Your task to perform on an android device: turn on translation in the chrome app Image 0: 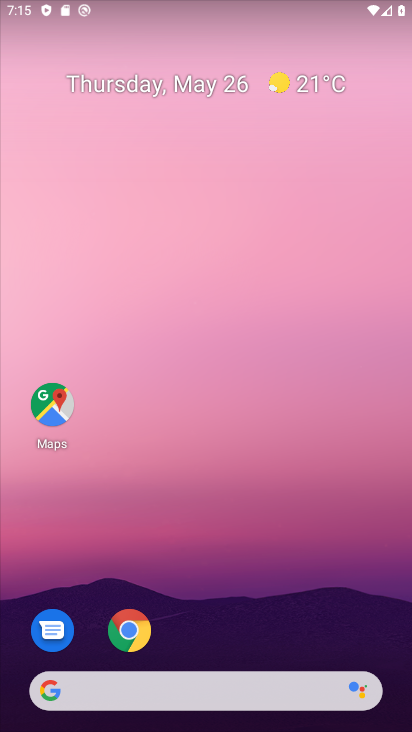
Step 0: click (130, 632)
Your task to perform on an android device: turn on translation in the chrome app Image 1: 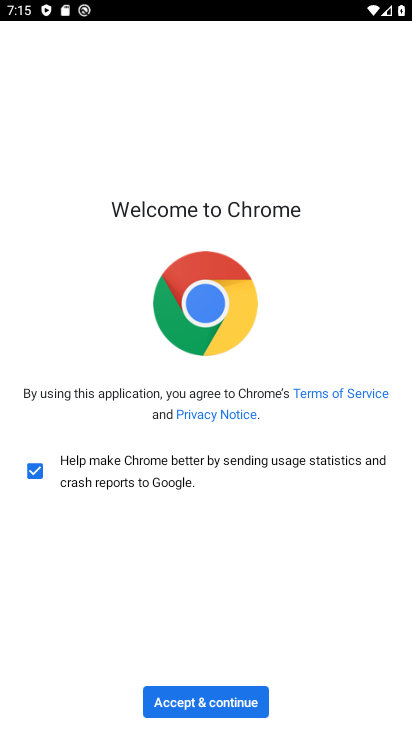
Step 1: click (193, 705)
Your task to perform on an android device: turn on translation in the chrome app Image 2: 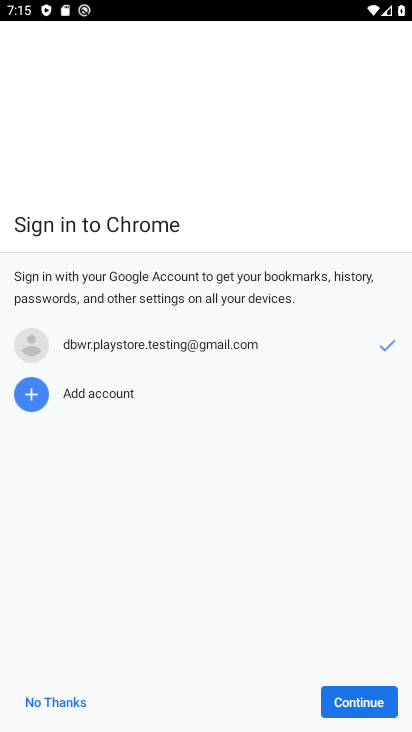
Step 2: click (359, 704)
Your task to perform on an android device: turn on translation in the chrome app Image 3: 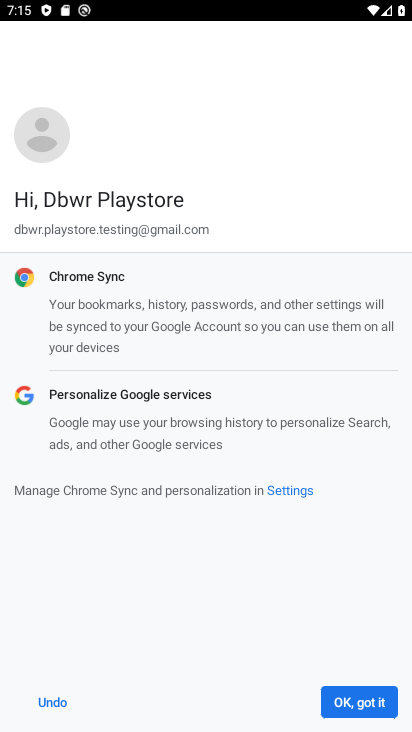
Step 3: click (359, 704)
Your task to perform on an android device: turn on translation in the chrome app Image 4: 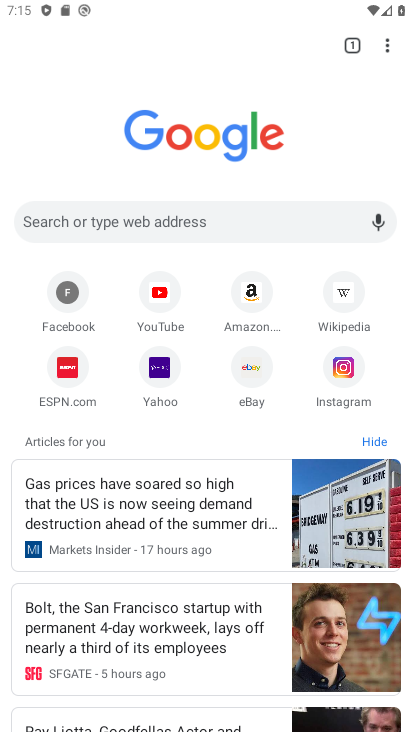
Step 4: click (386, 45)
Your task to perform on an android device: turn on translation in the chrome app Image 5: 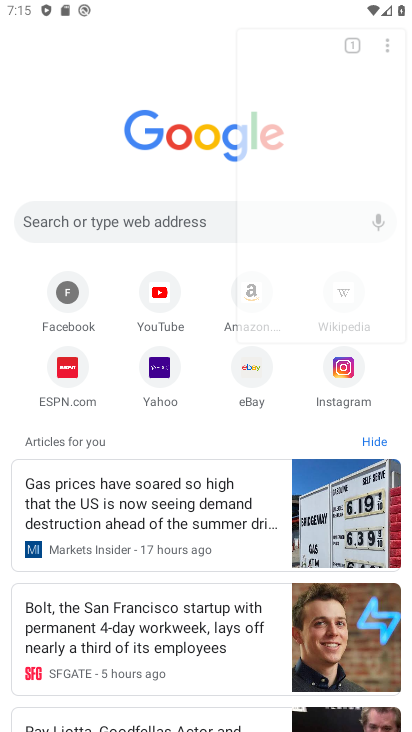
Step 5: click (386, 45)
Your task to perform on an android device: turn on translation in the chrome app Image 6: 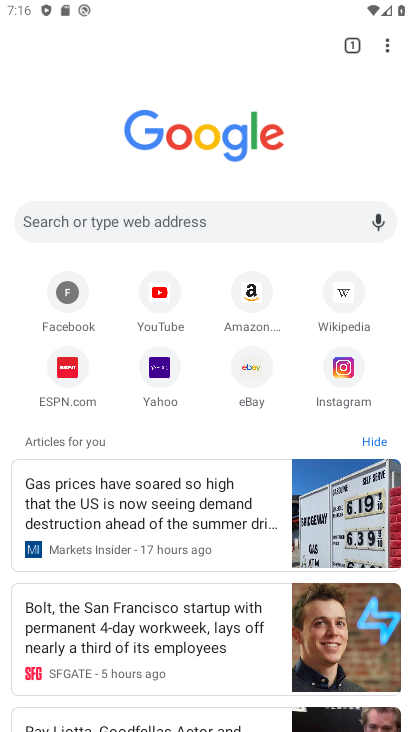
Step 6: click (386, 45)
Your task to perform on an android device: turn on translation in the chrome app Image 7: 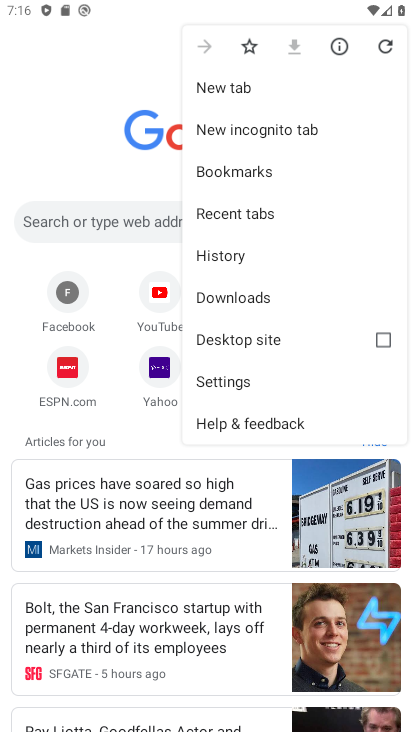
Step 7: click (226, 388)
Your task to perform on an android device: turn on translation in the chrome app Image 8: 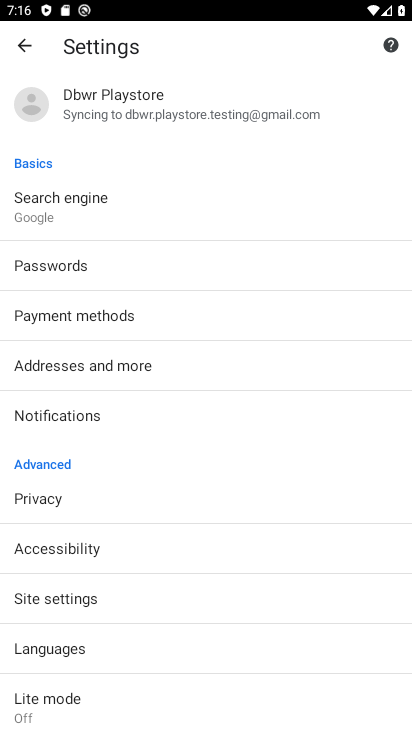
Step 8: click (56, 652)
Your task to perform on an android device: turn on translation in the chrome app Image 9: 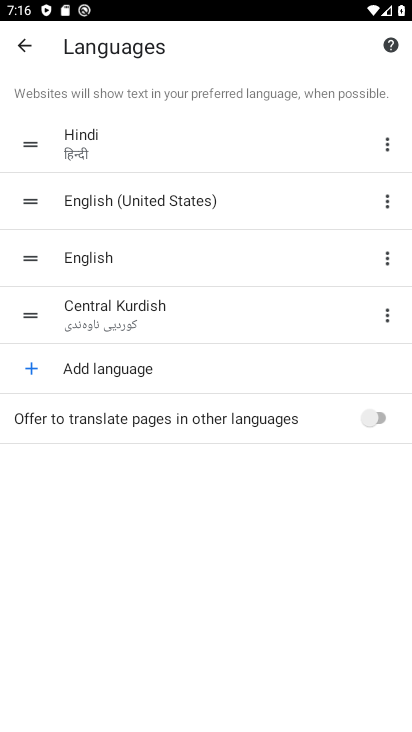
Step 9: click (373, 421)
Your task to perform on an android device: turn on translation in the chrome app Image 10: 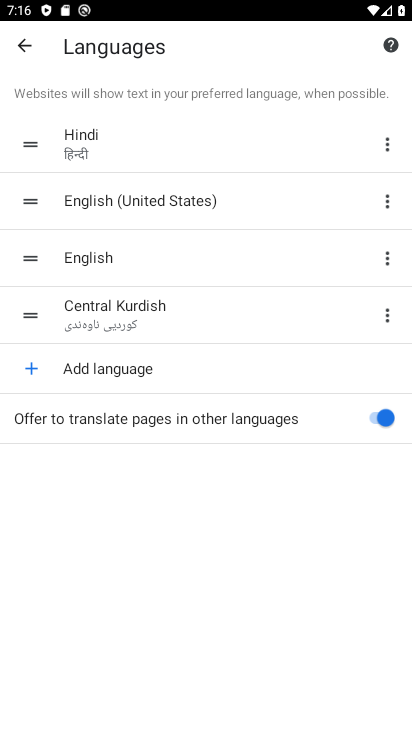
Step 10: task complete